Your task to perform on an android device: Show me recent news Image 0: 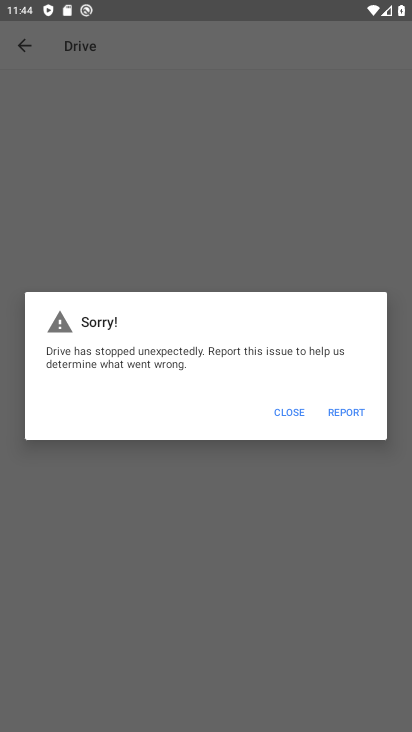
Step 0: press home button
Your task to perform on an android device: Show me recent news Image 1: 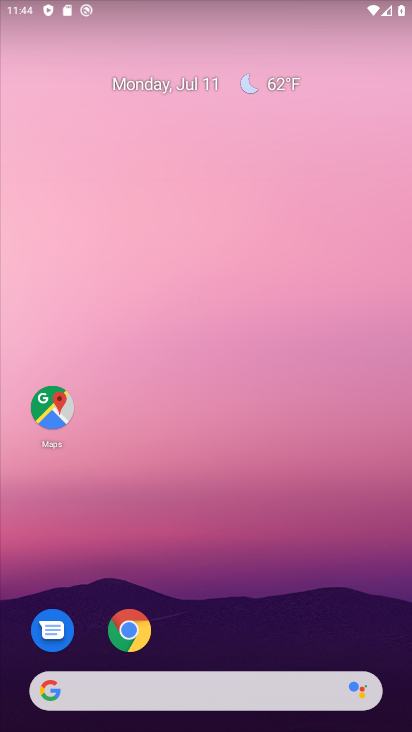
Step 1: drag from (231, 625) to (241, 132)
Your task to perform on an android device: Show me recent news Image 2: 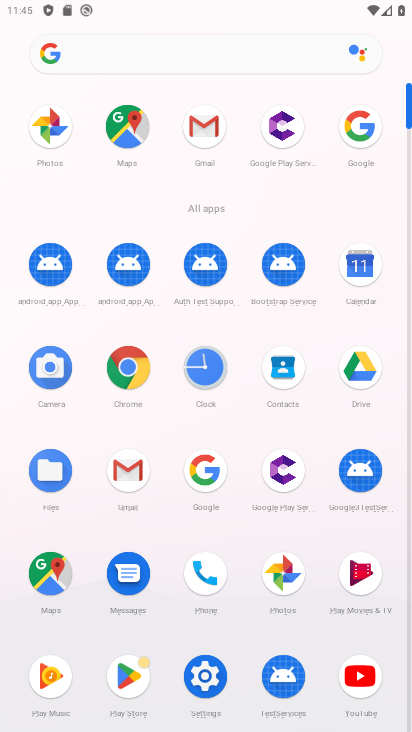
Step 2: click (359, 137)
Your task to perform on an android device: Show me recent news Image 3: 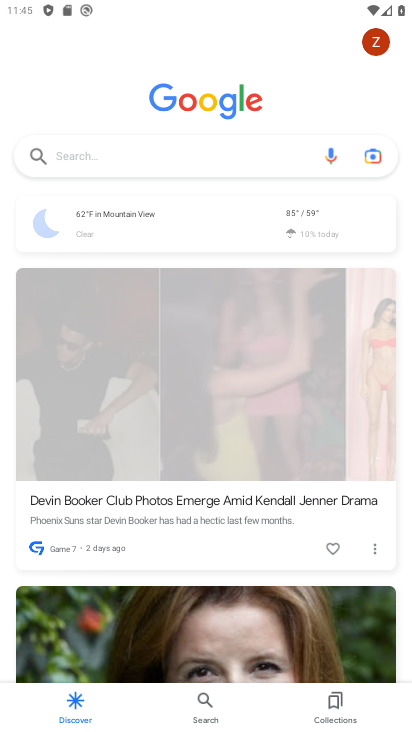
Step 3: click (270, 161)
Your task to perform on an android device: Show me recent news Image 4: 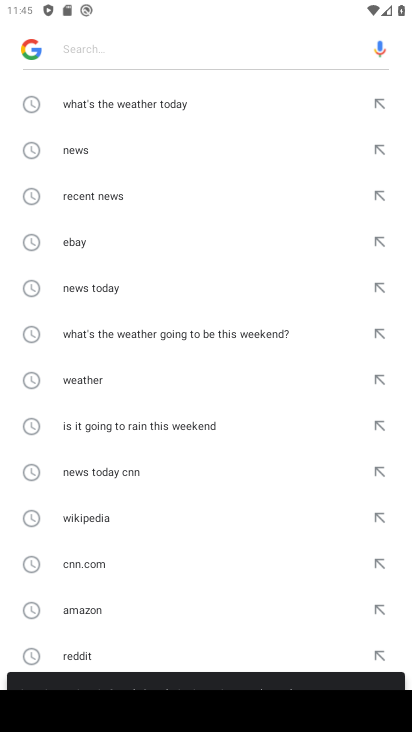
Step 4: click (127, 192)
Your task to perform on an android device: Show me recent news Image 5: 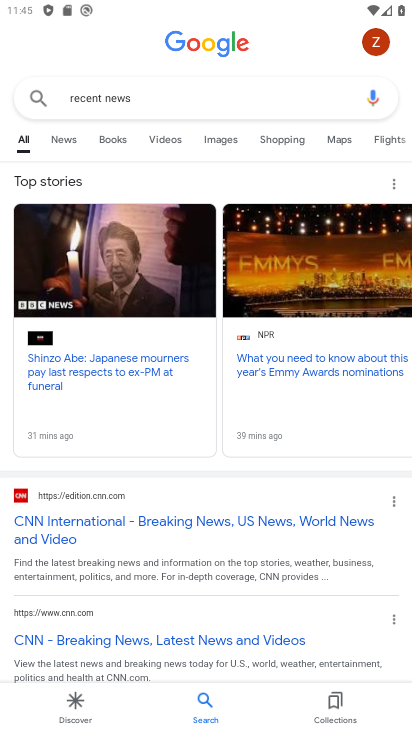
Step 5: task complete